Your task to perform on an android device: Turn off the flashlight Image 0: 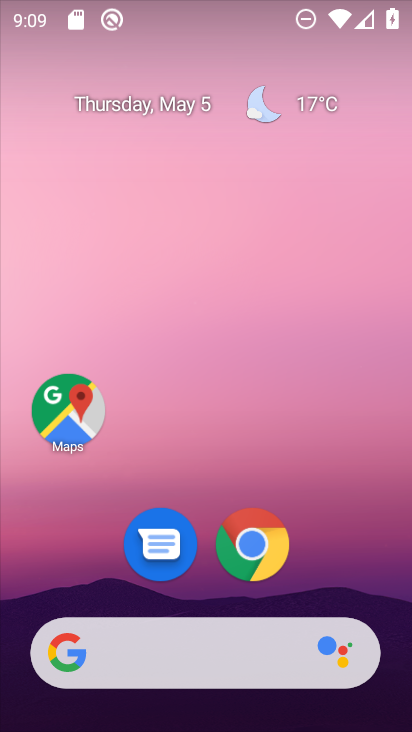
Step 0: drag from (399, 652) to (292, 46)
Your task to perform on an android device: Turn off the flashlight Image 1: 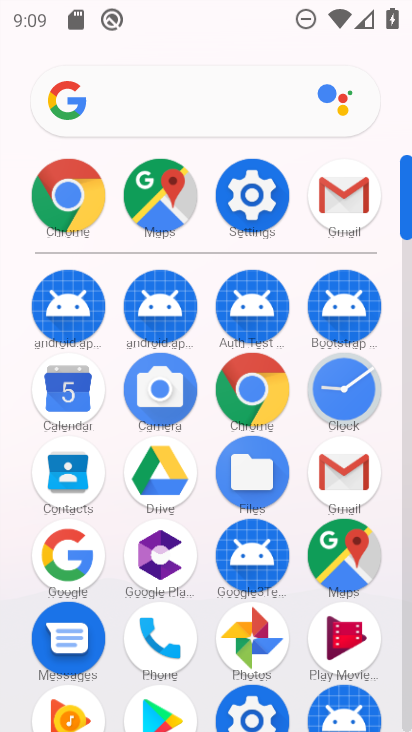
Step 1: click (247, 213)
Your task to perform on an android device: Turn off the flashlight Image 2: 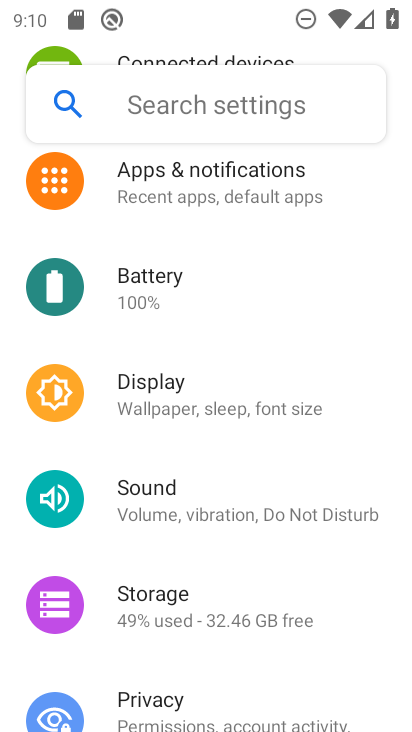
Step 2: task complete